Your task to perform on an android device: remove spam from my inbox in the gmail app Image 0: 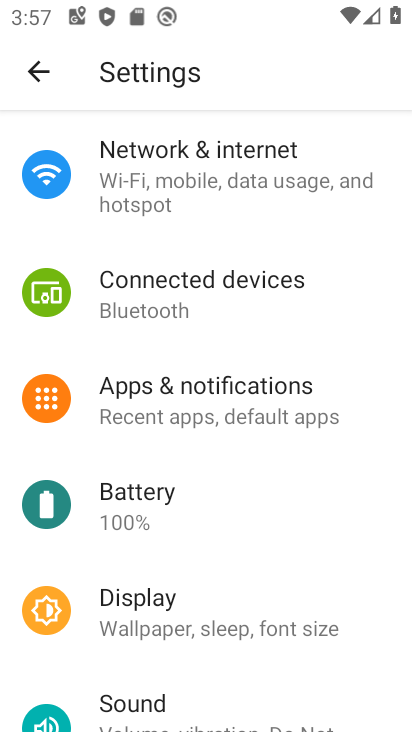
Step 0: press home button
Your task to perform on an android device: remove spam from my inbox in the gmail app Image 1: 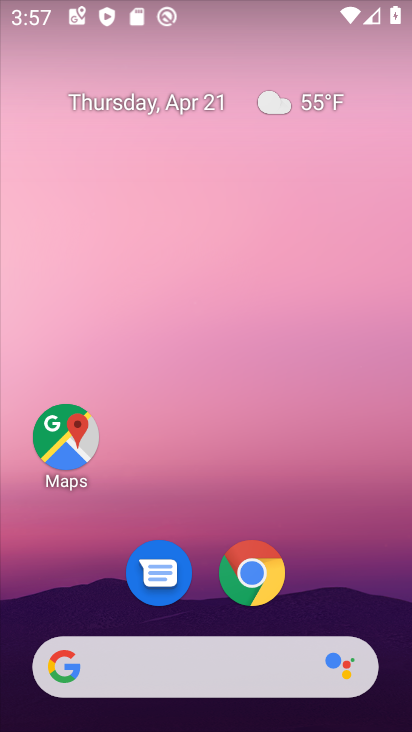
Step 1: drag from (371, 610) to (285, 238)
Your task to perform on an android device: remove spam from my inbox in the gmail app Image 2: 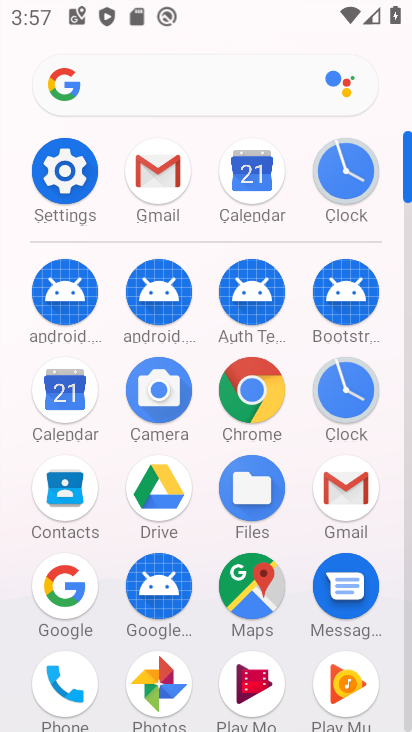
Step 2: click (409, 696)
Your task to perform on an android device: remove spam from my inbox in the gmail app Image 3: 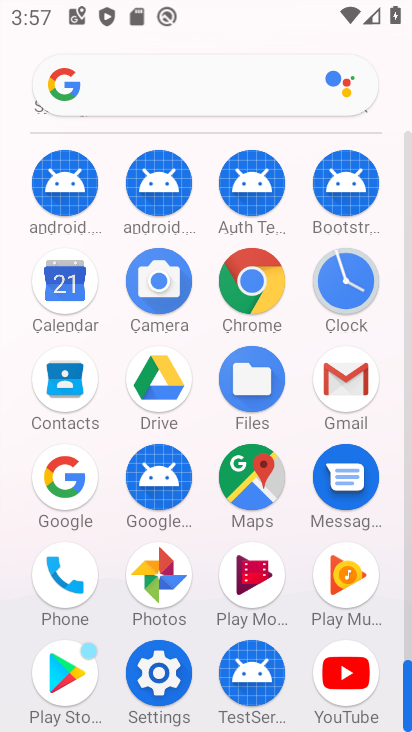
Step 3: click (344, 374)
Your task to perform on an android device: remove spam from my inbox in the gmail app Image 4: 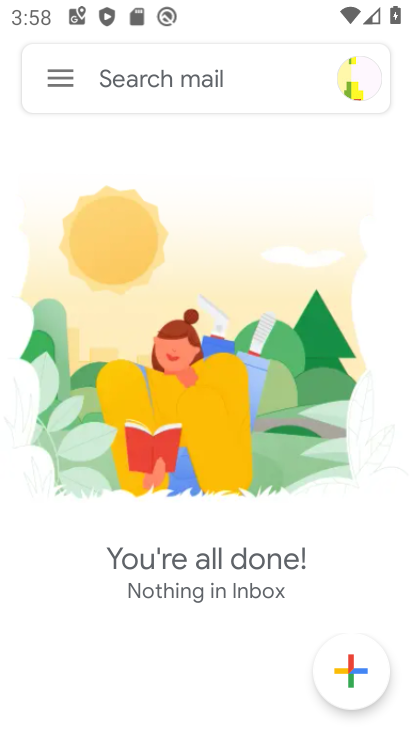
Step 4: click (57, 74)
Your task to perform on an android device: remove spam from my inbox in the gmail app Image 5: 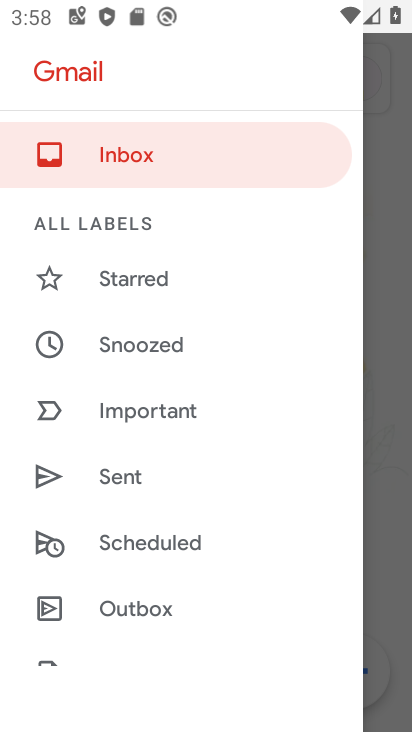
Step 5: drag from (206, 552) to (230, 262)
Your task to perform on an android device: remove spam from my inbox in the gmail app Image 6: 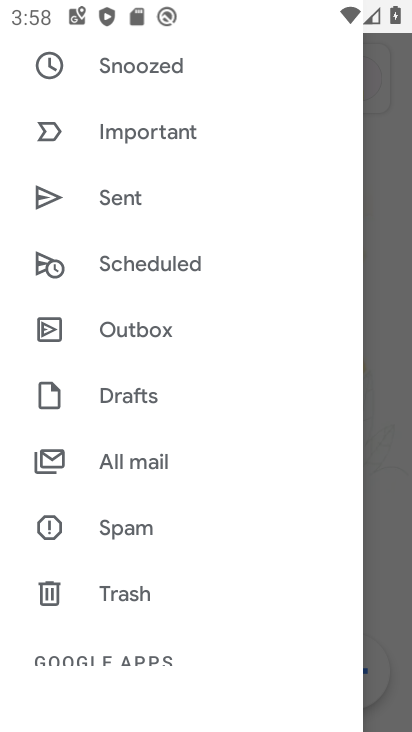
Step 6: click (116, 532)
Your task to perform on an android device: remove spam from my inbox in the gmail app Image 7: 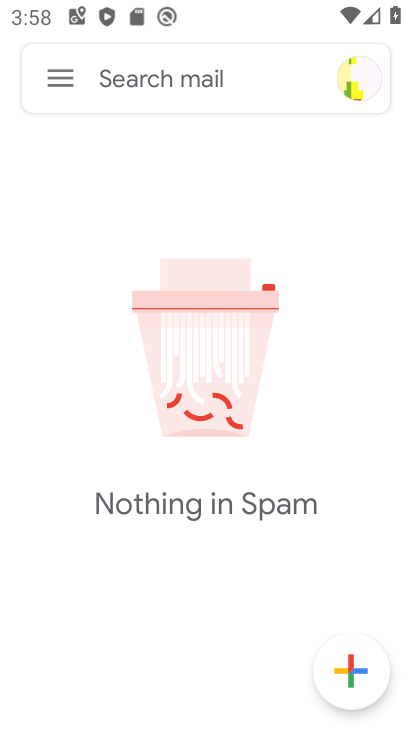
Step 7: task complete